Your task to perform on an android device: check out phone information Image 0: 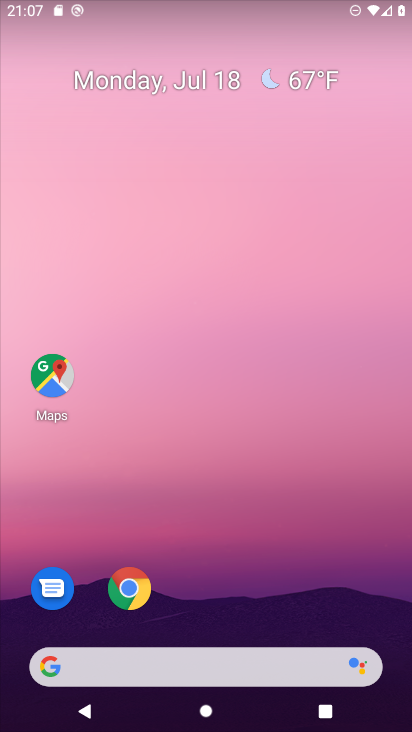
Step 0: drag from (338, 606) to (311, 137)
Your task to perform on an android device: check out phone information Image 1: 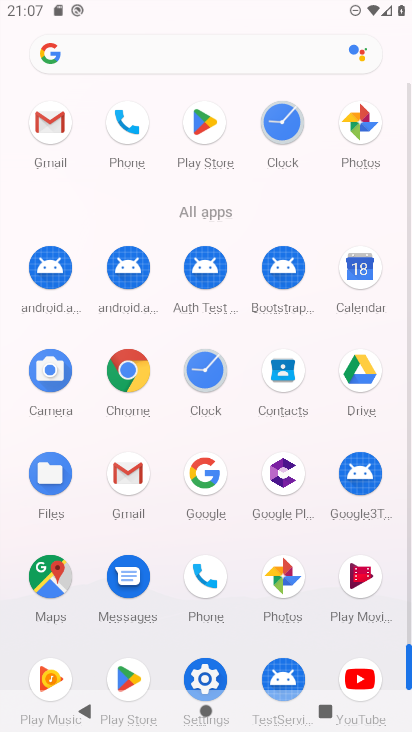
Step 1: click (204, 674)
Your task to perform on an android device: check out phone information Image 2: 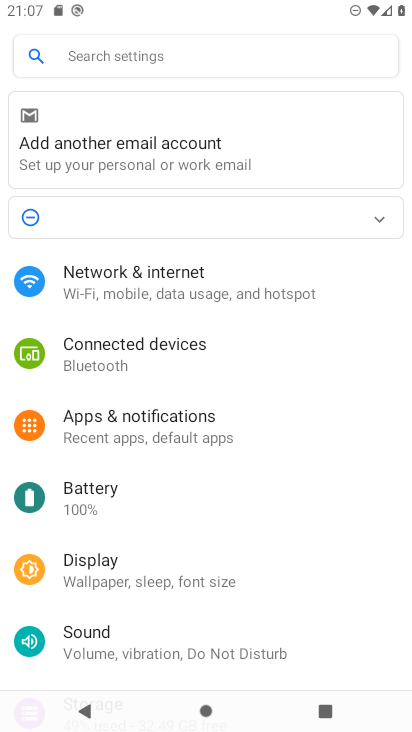
Step 2: drag from (293, 624) to (266, 131)
Your task to perform on an android device: check out phone information Image 3: 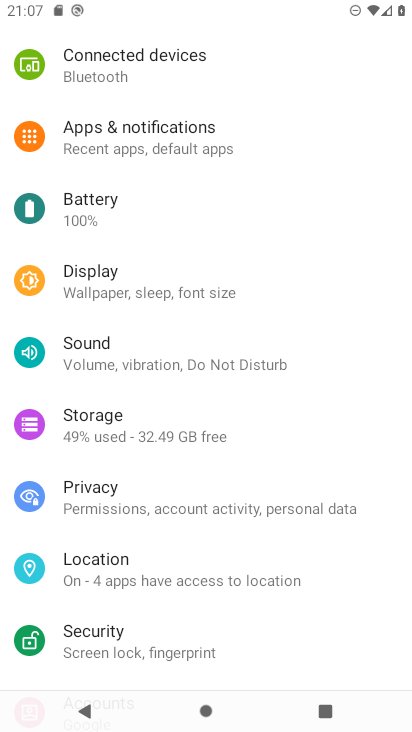
Step 3: drag from (288, 639) to (301, 255)
Your task to perform on an android device: check out phone information Image 4: 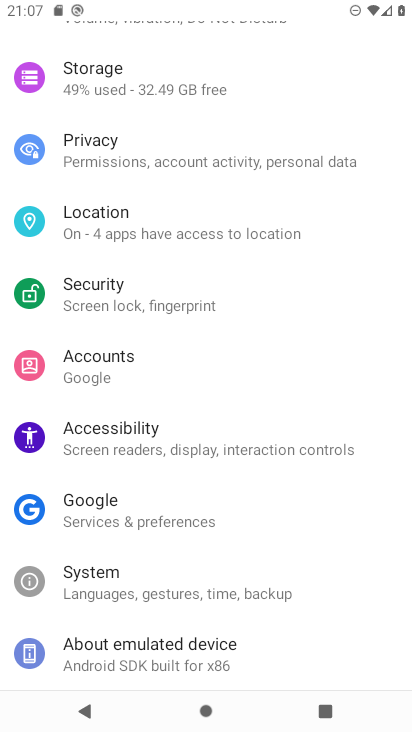
Step 4: click (83, 649)
Your task to perform on an android device: check out phone information Image 5: 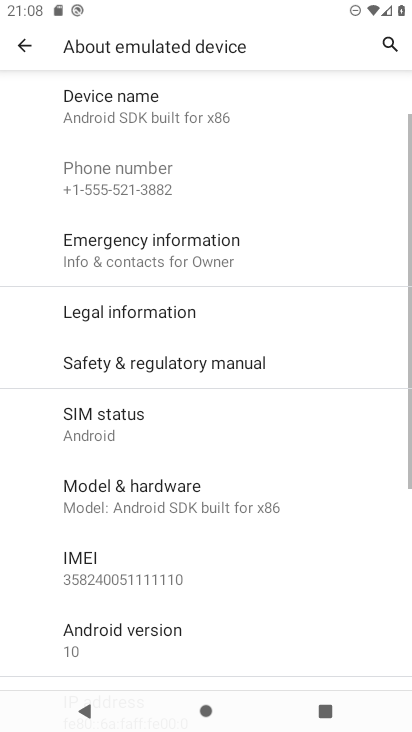
Step 5: task complete